Your task to perform on an android device: delete browsing data in the chrome app Image 0: 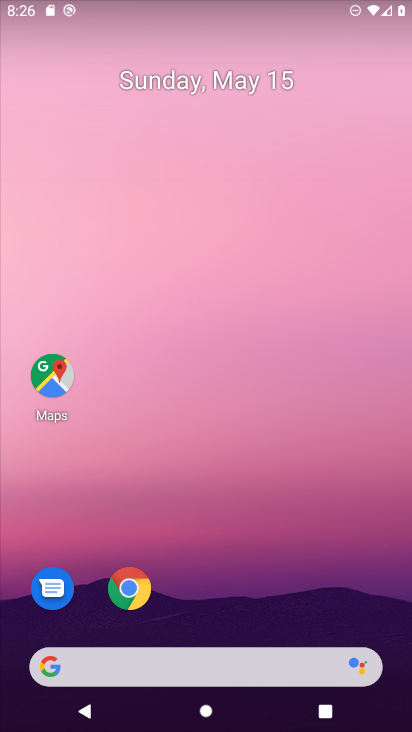
Step 0: click (127, 580)
Your task to perform on an android device: delete browsing data in the chrome app Image 1: 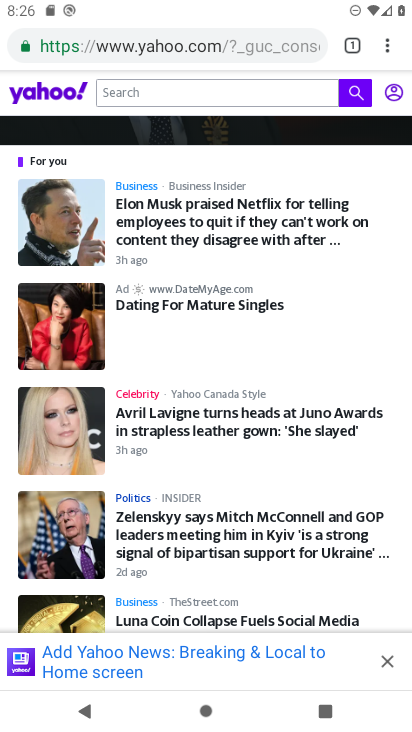
Step 1: click (389, 45)
Your task to perform on an android device: delete browsing data in the chrome app Image 2: 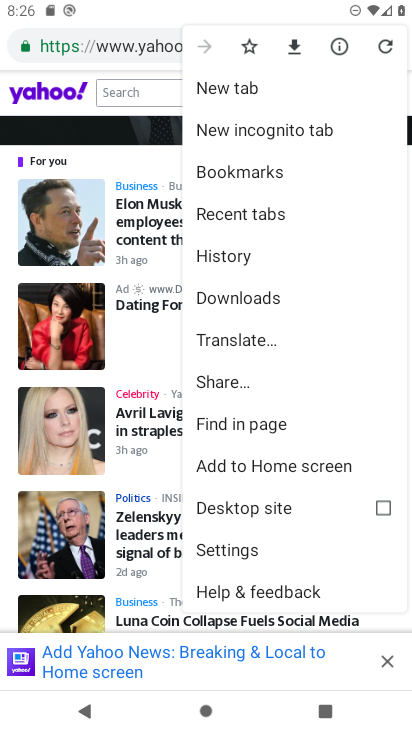
Step 2: click (261, 255)
Your task to perform on an android device: delete browsing data in the chrome app Image 3: 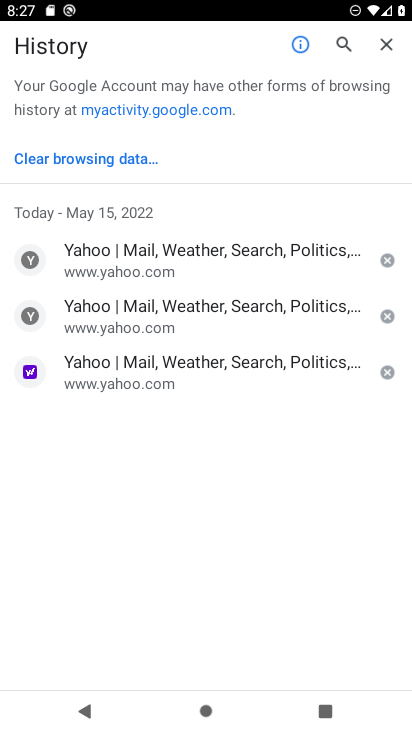
Step 3: click (90, 158)
Your task to perform on an android device: delete browsing data in the chrome app Image 4: 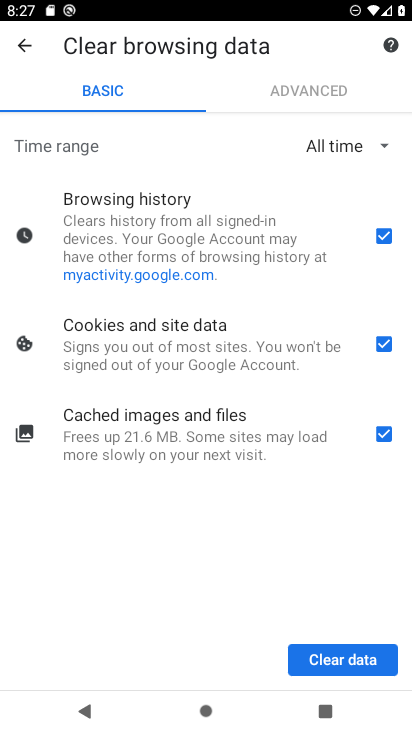
Step 4: click (354, 659)
Your task to perform on an android device: delete browsing data in the chrome app Image 5: 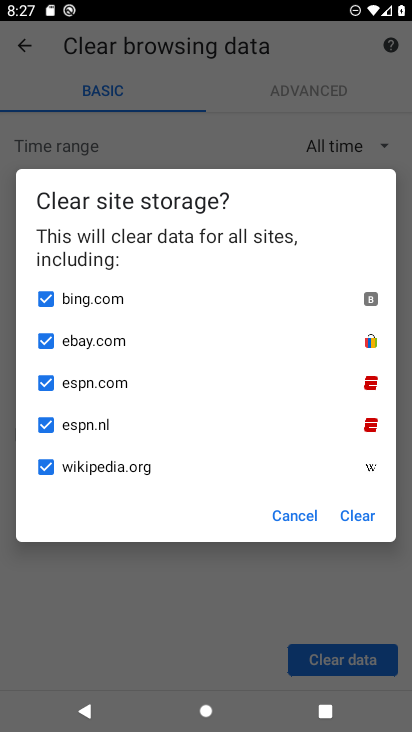
Step 5: click (364, 516)
Your task to perform on an android device: delete browsing data in the chrome app Image 6: 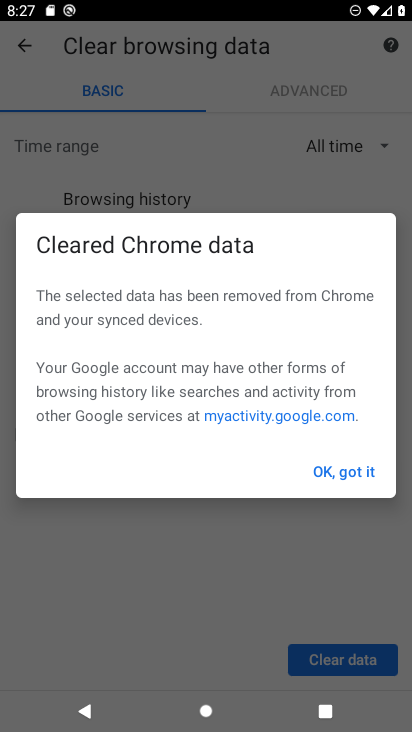
Step 6: click (329, 466)
Your task to perform on an android device: delete browsing data in the chrome app Image 7: 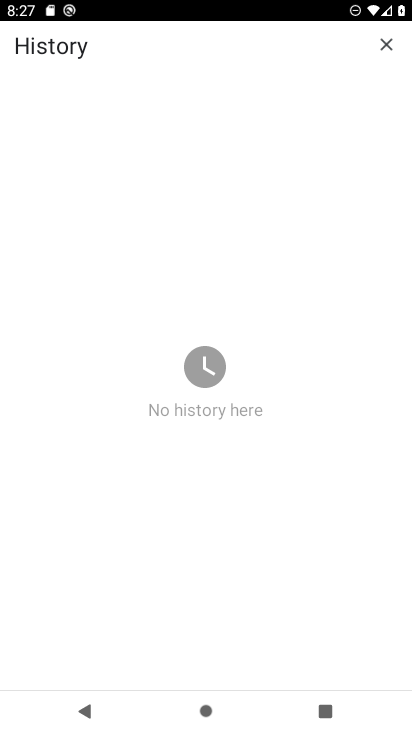
Step 7: task complete